Your task to perform on an android device: Open display settings Image 0: 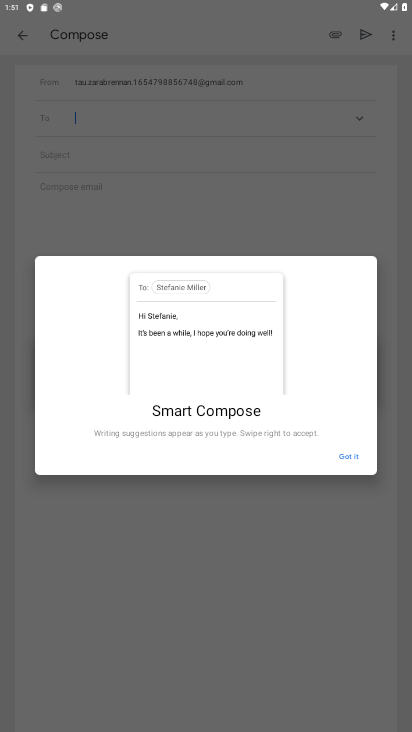
Step 0: press home button
Your task to perform on an android device: Open display settings Image 1: 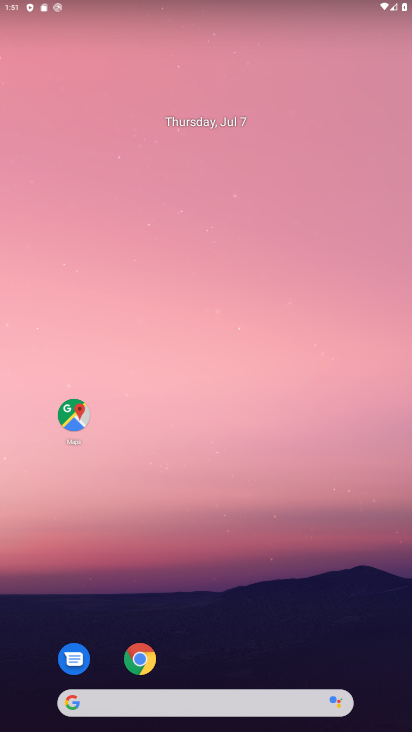
Step 1: drag from (273, 636) to (265, 164)
Your task to perform on an android device: Open display settings Image 2: 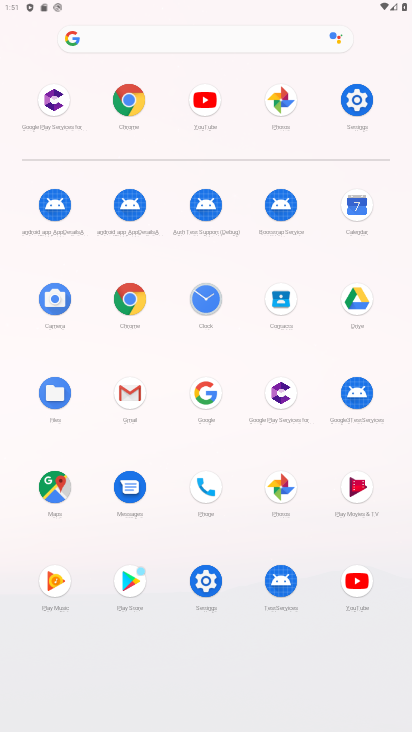
Step 2: click (353, 111)
Your task to perform on an android device: Open display settings Image 3: 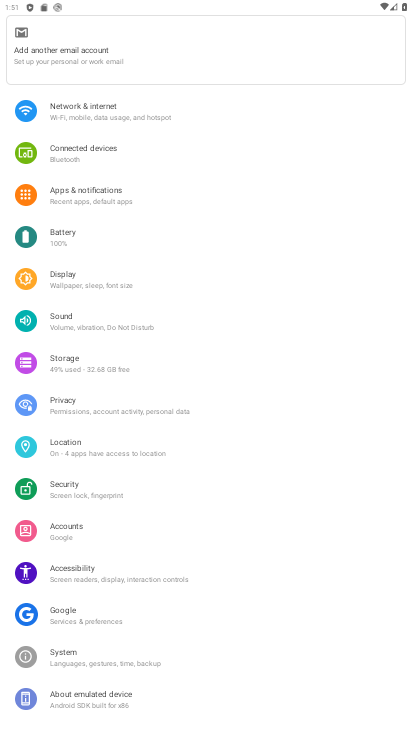
Step 3: click (127, 280)
Your task to perform on an android device: Open display settings Image 4: 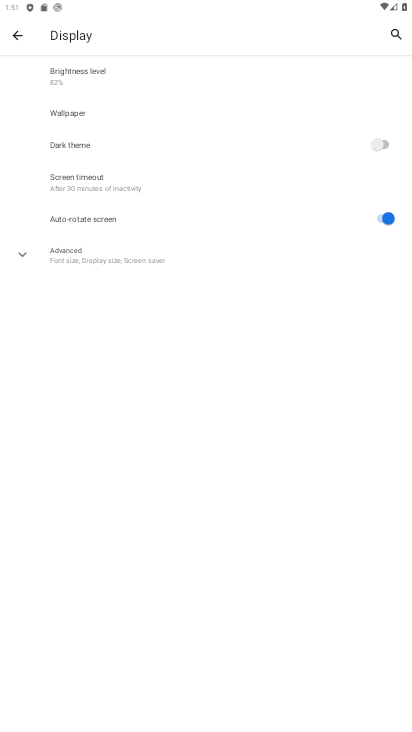
Step 4: task complete